Your task to perform on an android device: turn on airplane mode Image 0: 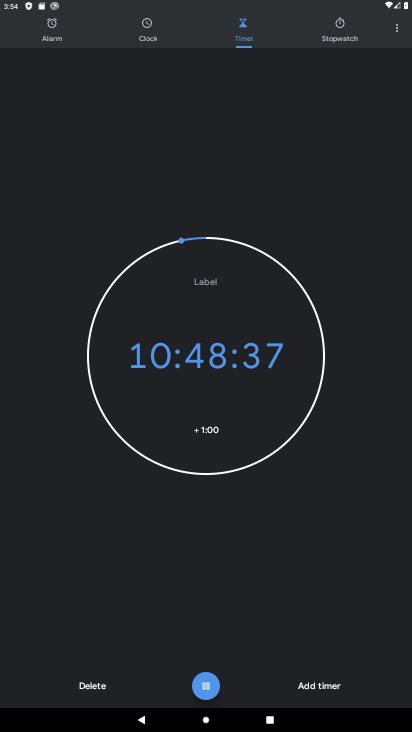
Step 0: press home button
Your task to perform on an android device: turn on airplane mode Image 1: 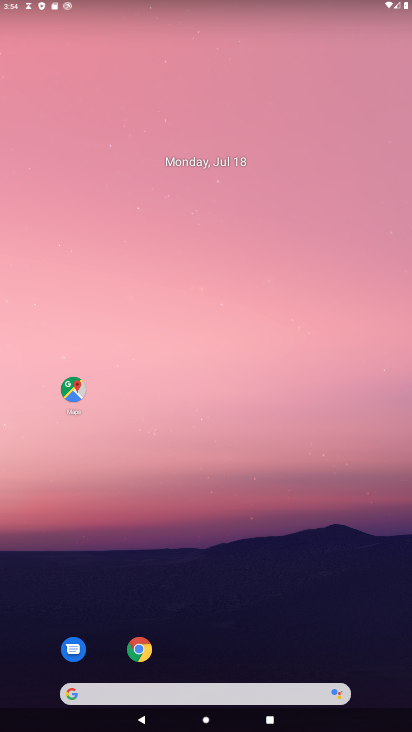
Step 1: drag from (320, 3) to (324, 517)
Your task to perform on an android device: turn on airplane mode Image 2: 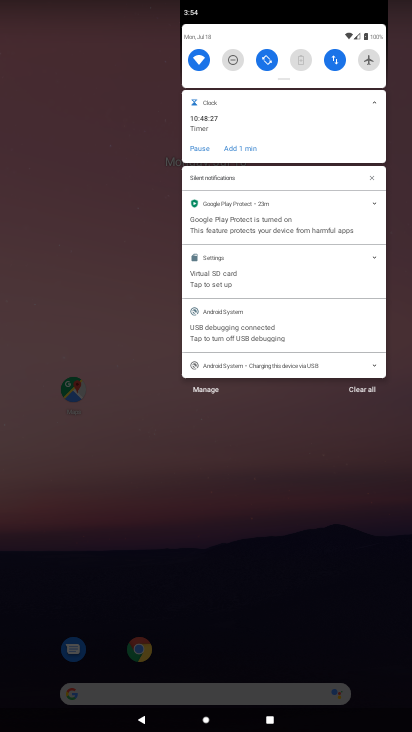
Step 2: click (374, 55)
Your task to perform on an android device: turn on airplane mode Image 3: 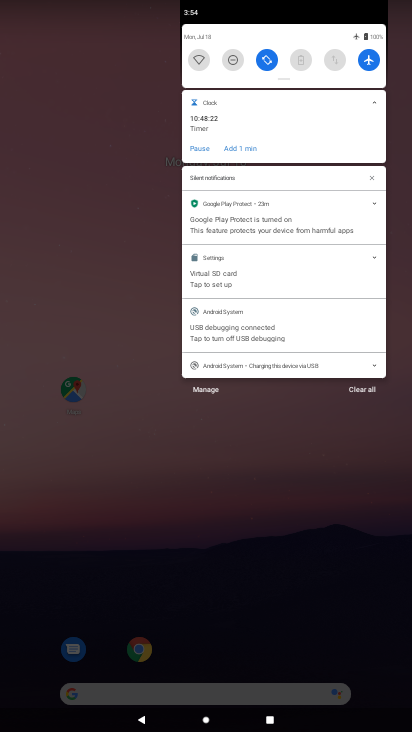
Step 3: task complete